Your task to perform on an android device: Search for the best rated electric lawnmower on Home Depot Image 0: 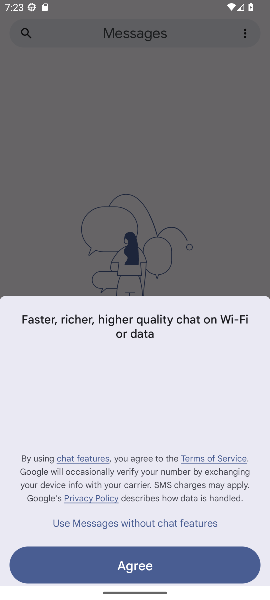
Step 0: press home button
Your task to perform on an android device: Search for the best rated electric lawnmower on Home Depot Image 1: 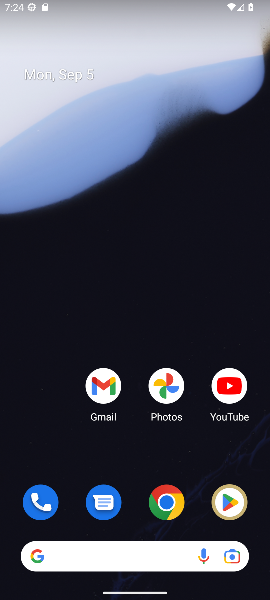
Step 1: drag from (200, 427) to (165, 31)
Your task to perform on an android device: Search for the best rated electric lawnmower on Home Depot Image 2: 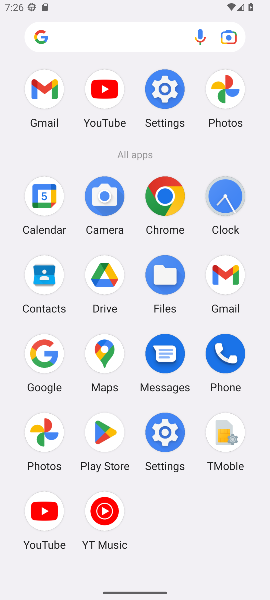
Step 2: click (47, 348)
Your task to perform on an android device: Search for the best rated electric lawnmower on Home Depot Image 3: 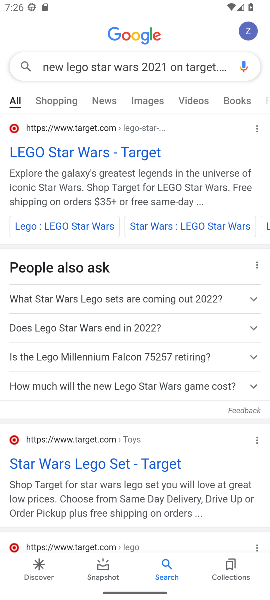
Step 3: press back button
Your task to perform on an android device: Search for the best rated electric lawnmower on Home Depot Image 4: 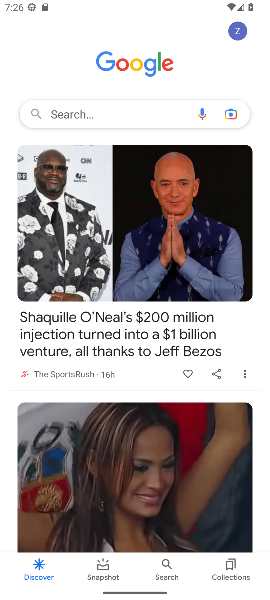
Step 4: click (71, 111)
Your task to perform on an android device: Search for the best rated electric lawnmower on Home Depot Image 5: 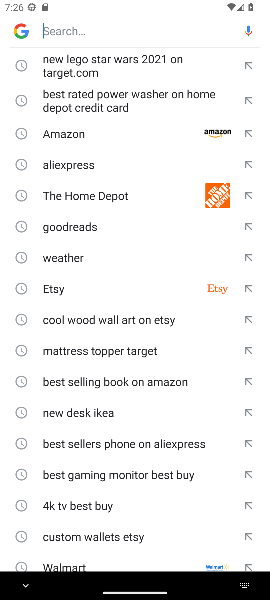
Step 5: type "est rated electric lawnmower on Home Depot"
Your task to perform on an android device: Search for the best rated electric lawnmower on Home Depot Image 6: 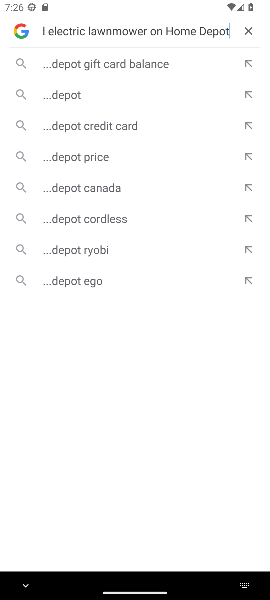
Step 6: click (105, 72)
Your task to perform on an android device: Search for the best rated electric lawnmower on Home Depot Image 7: 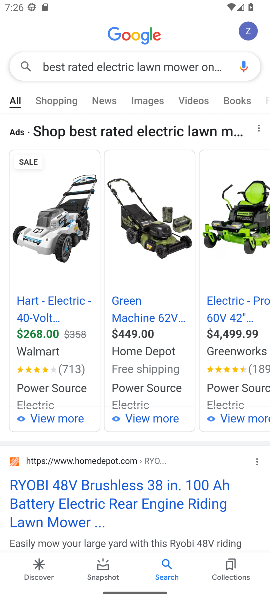
Step 7: task complete